Your task to perform on an android device: change the clock display to digital Image 0: 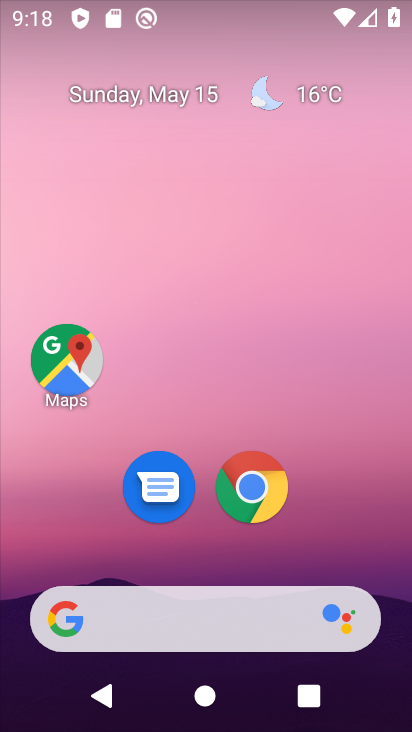
Step 0: drag from (390, 601) to (347, 76)
Your task to perform on an android device: change the clock display to digital Image 1: 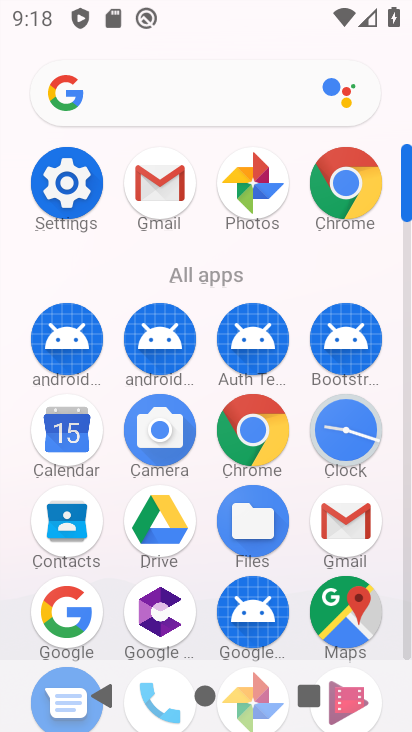
Step 1: click (342, 425)
Your task to perform on an android device: change the clock display to digital Image 2: 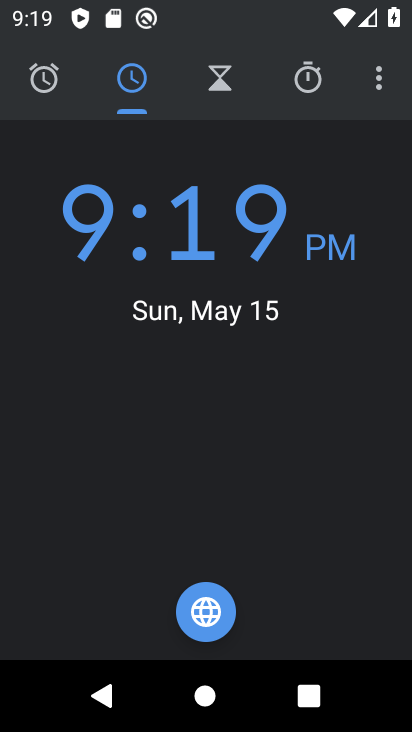
Step 2: click (378, 86)
Your task to perform on an android device: change the clock display to digital Image 3: 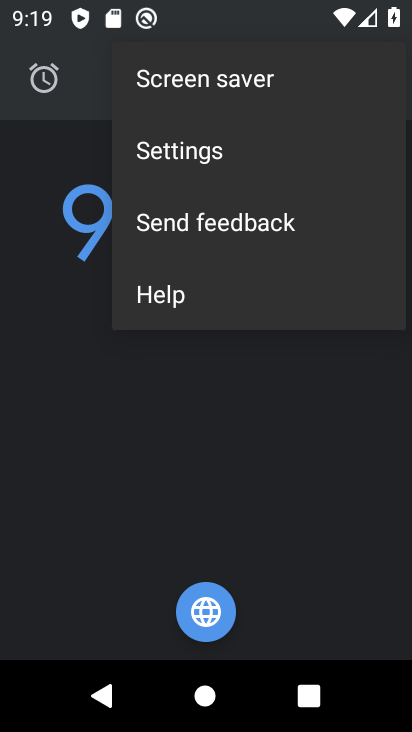
Step 3: click (185, 163)
Your task to perform on an android device: change the clock display to digital Image 4: 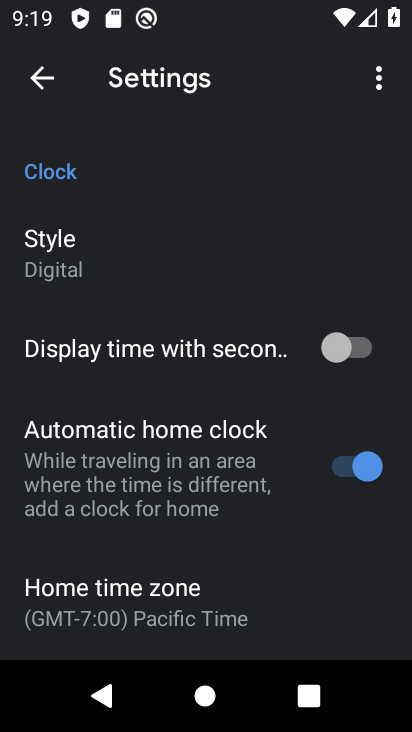
Step 4: task complete